Your task to perform on an android device: turn on airplane mode Image 0: 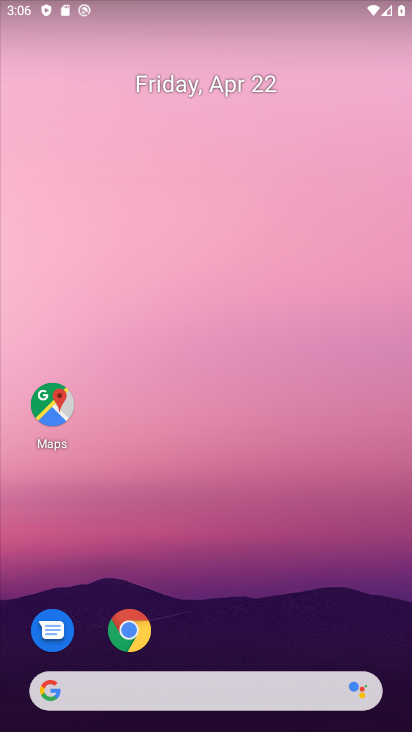
Step 0: drag from (197, 638) to (320, 70)
Your task to perform on an android device: turn on airplane mode Image 1: 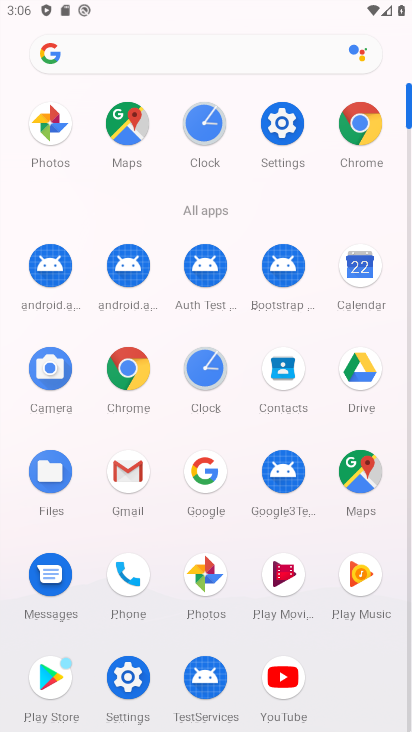
Step 1: click (277, 142)
Your task to perform on an android device: turn on airplane mode Image 2: 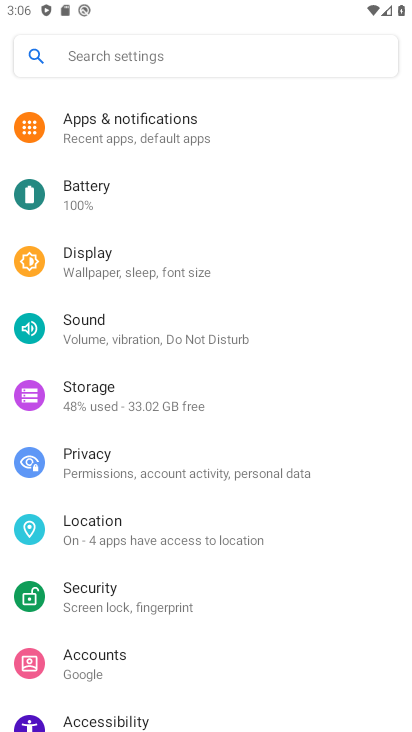
Step 2: drag from (163, 210) to (155, 724)
Your task to perform on an android device: turn on airplane mode Image 3: 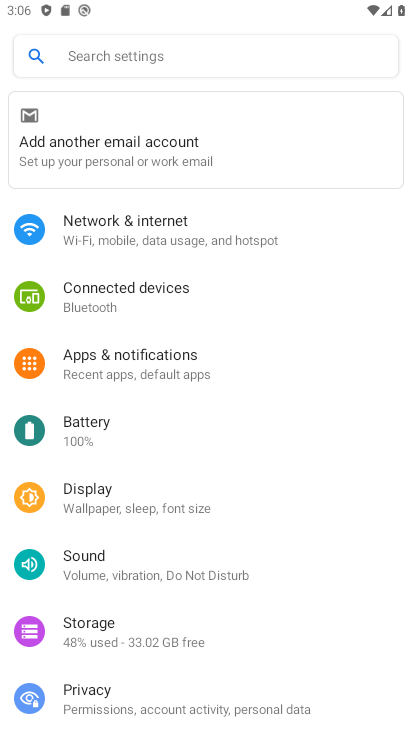
Step 3: click (144, 238)
Your task to perform on an android device: turn on airplane mode Image 4: 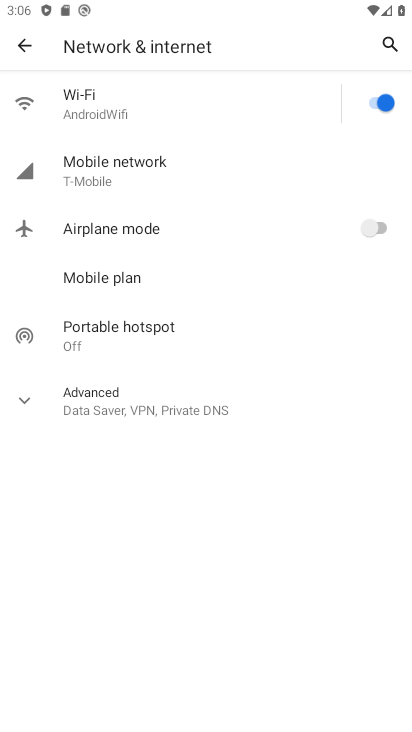
Step 4: click (147, 237)
Your task to perform on an android device: turn on airplane mode Image 5: 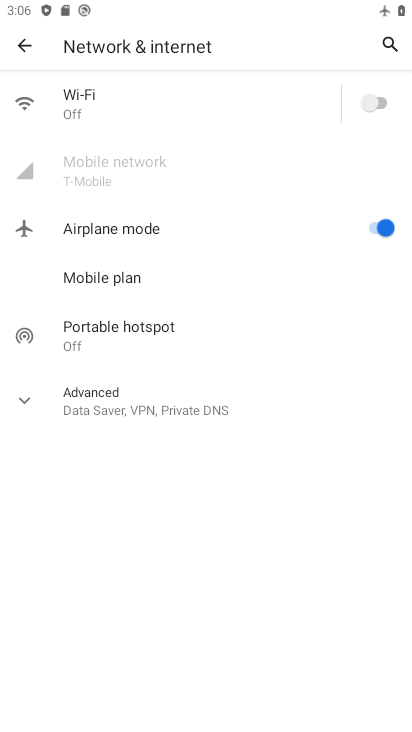
Step 5: task complete